Your task to perform on an android device: change your default location settings in chrome Image 0: 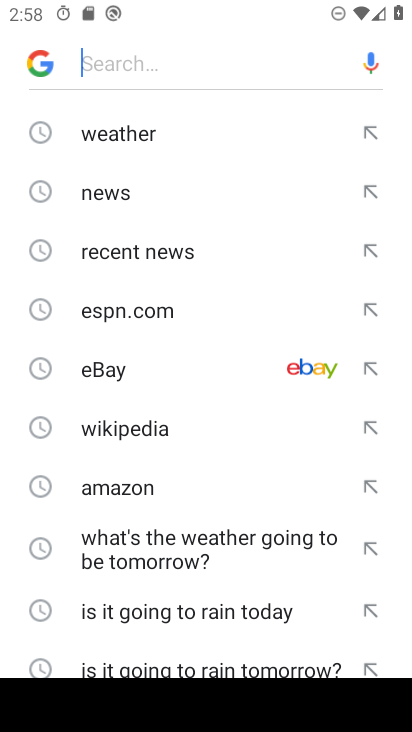
Step 0: press home button
Your task to perform on an android device: change your default location settings in chrome Image 1: 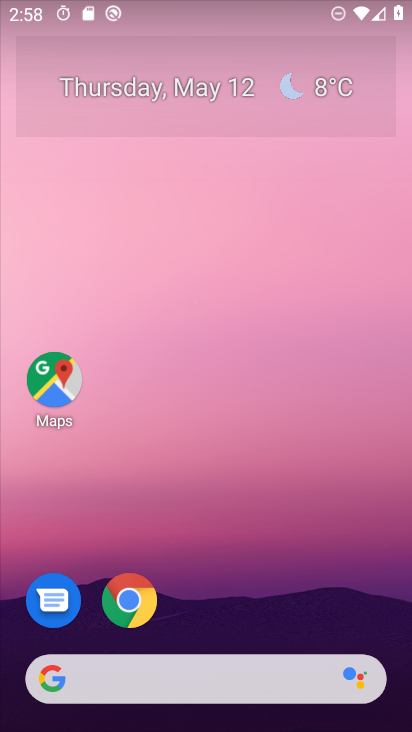
Step 1: click (128, 601)
Your task to perform on an android device: change your default location settings in chrome Image 2: 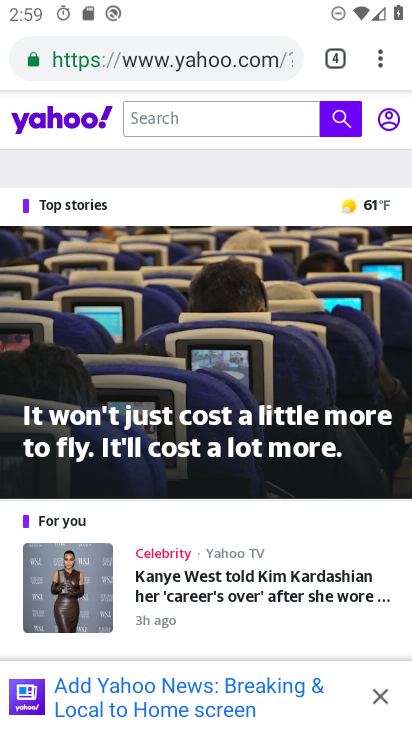
Step 2: click (384, 61)
Your task to perform on an android device: change your default location settings in chrome Image 3: 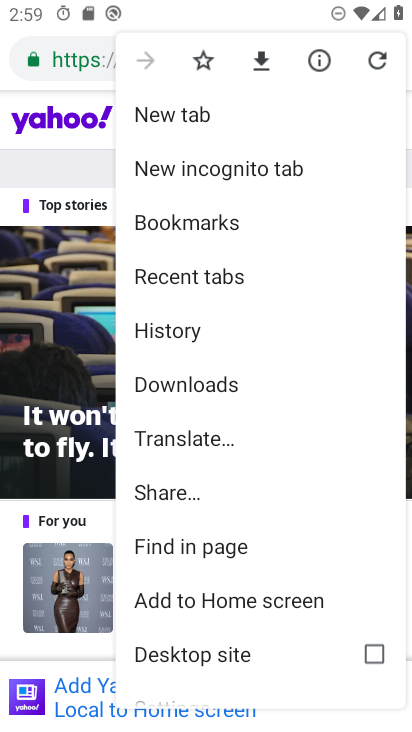
Step 3: drag from (214, 625) to (219, 352)
Your task to perform on an android device: change your default location settings in chrome Image 4: 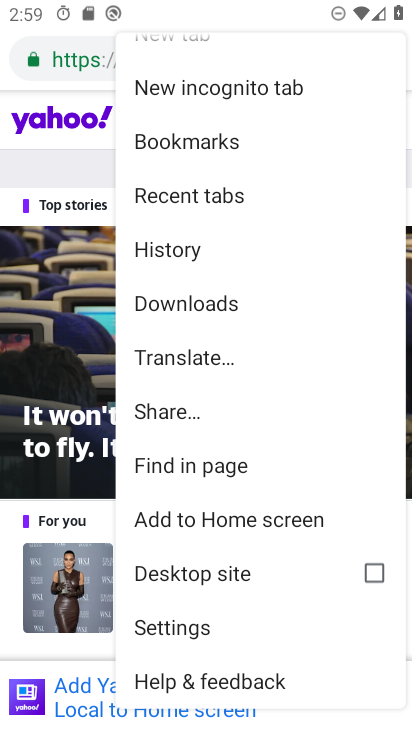
Step 4: click (177, 625)
Your task to perform on an android device: change your default location settings in chrome Image 5: 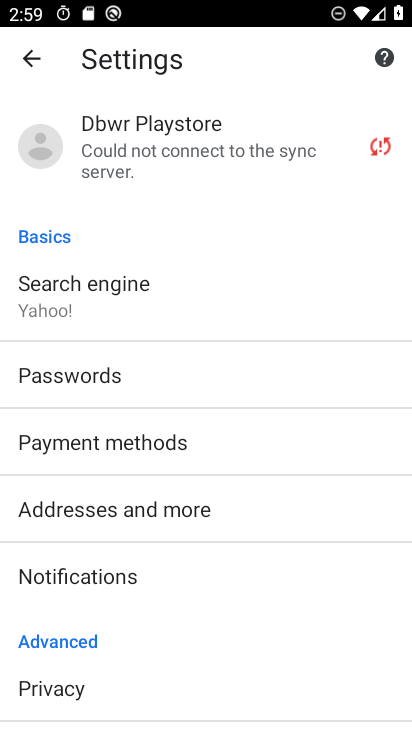
Step 5: drag from (92, 643) to (107, 350)
Your task to perform on an android device: change your default location settings in chrome Image 6: 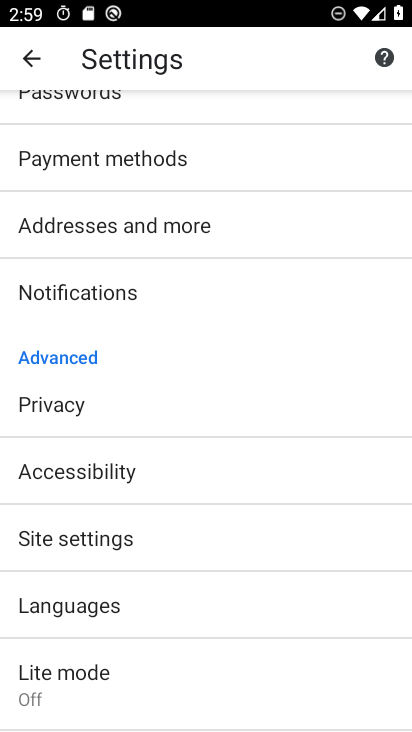
Step 6: click (72, 535)
Your task to perform on an android device: change your default location settings in chrome Image 7: 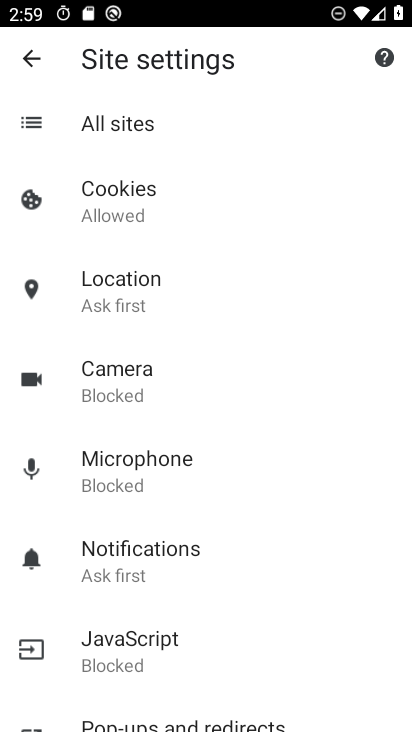
Step 7: drag from (129, 646) to (133, 466)
Your task to perform on an android device: change your default location settings in chrome Image 8: 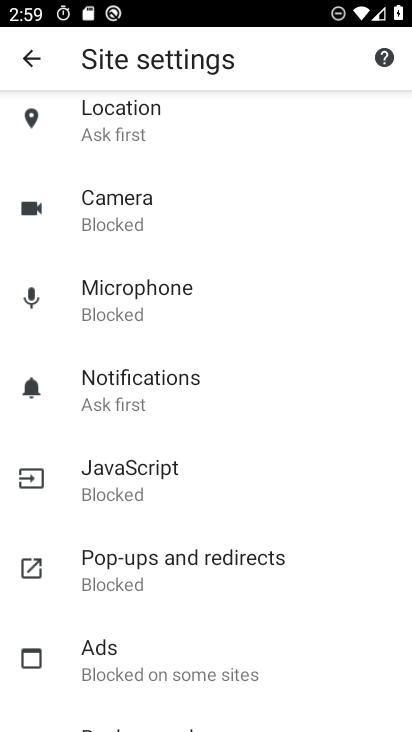
Step 8: click (116, 125)
Your task to perform on an android device: change your default location settings in chrome Image 9: 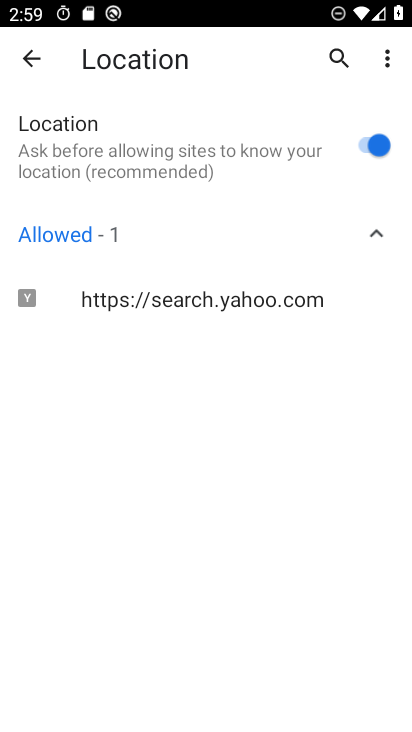
Step 9: click (370, 139)
Your task to perform on an android device: change your default location settings in chrome Image 10: 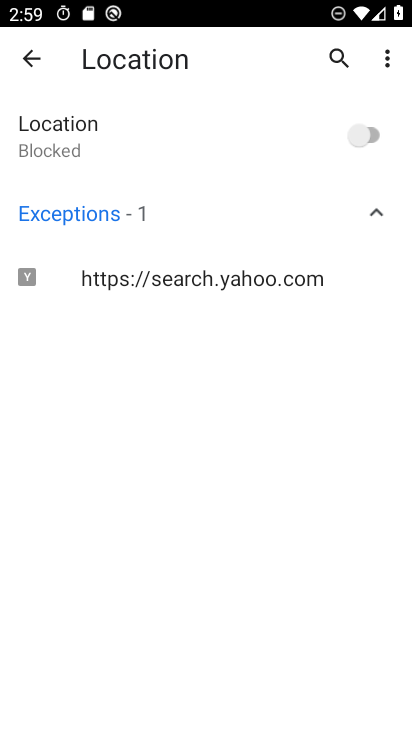
Step 10: task complete